Your task to perform on an android device: toggle data saver in the chrome app Image 0: 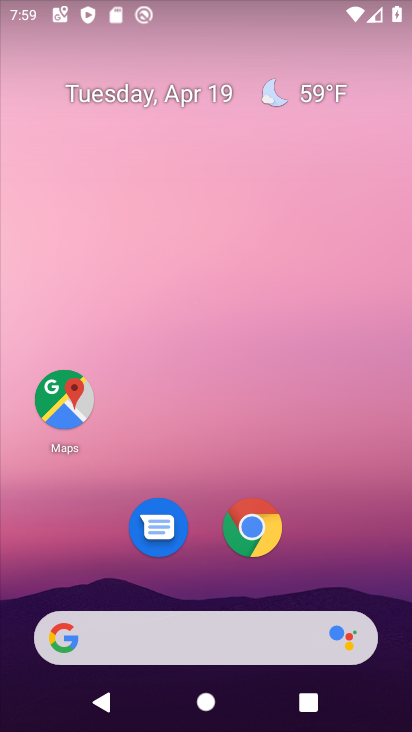
Step 0: click (248, 522)
Your task to perform on an android device: toggle data saver in the chrome app Image 1: 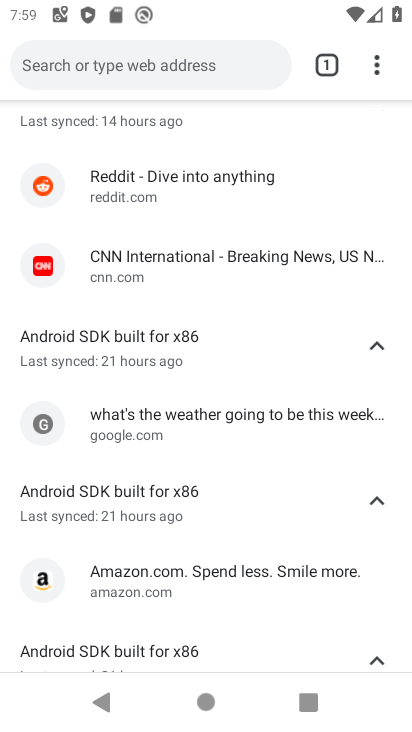
Step 1: click (371, 56)
Your task to perform on an android device: toggle data saver in the chrome app Image 2: 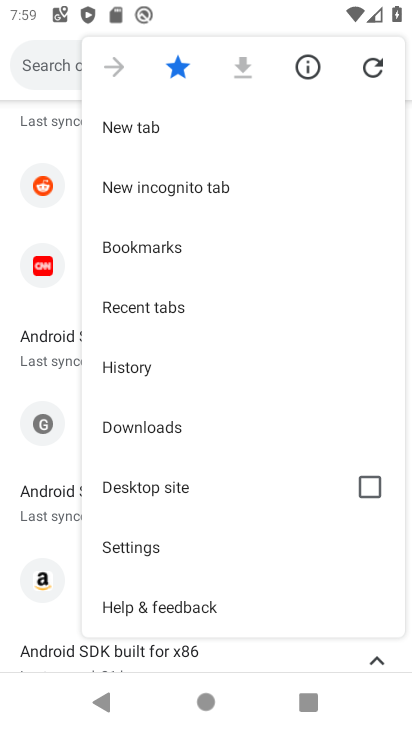
Step 2: click (146, 552)
Your task to perform on an android device: toggle data saver in the chrome app Image 3: 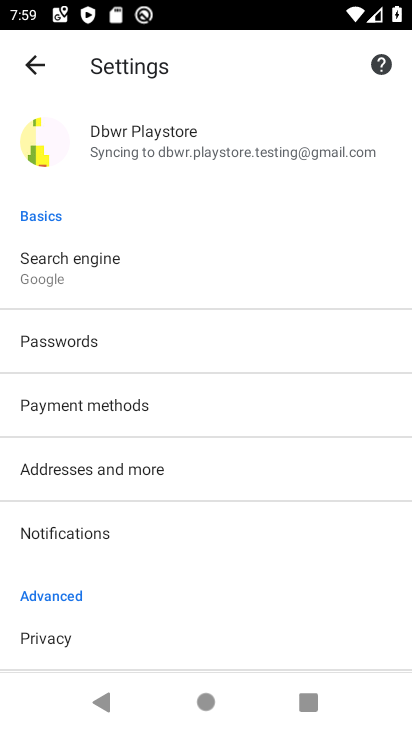
Step 3: drag from (132, 630) to (171, 266)
Your task to perform on an android device: toggle data saver in the chrome app Image 4: 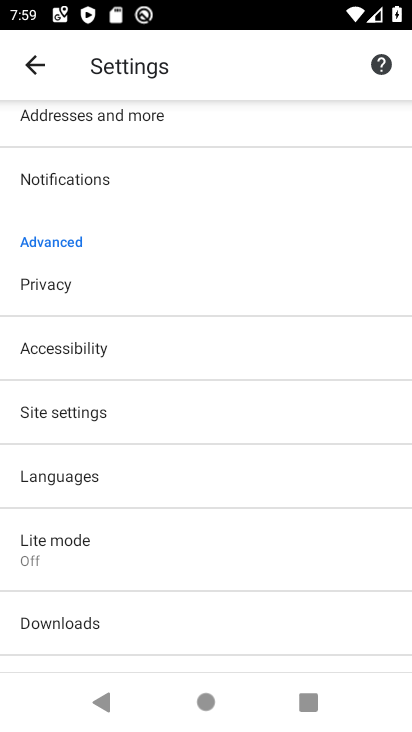
Step 4: click (92, 560)
Your task to perform on an android device: toggle data saver in the chrome app Image 5: 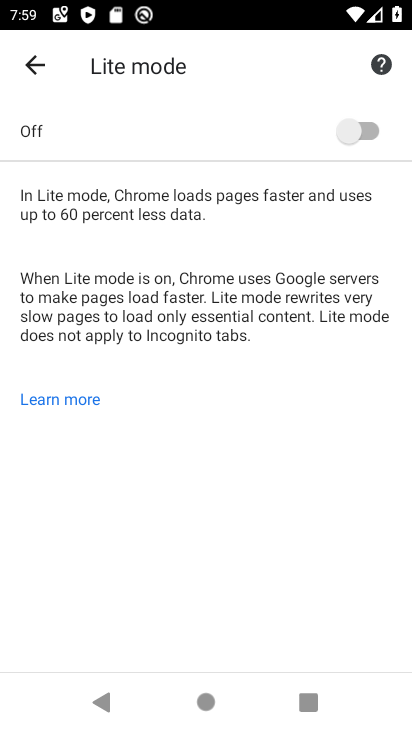
Step 5: click (368, 135)
Your task to perform on an android device: toggle data saver in the chrome app Image 6: 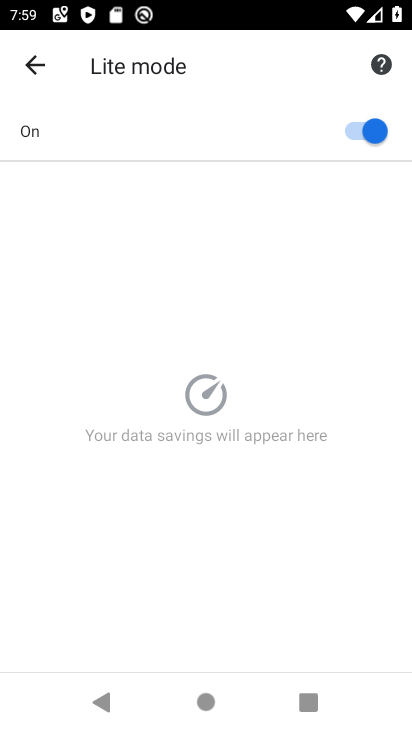
Step 6: task complete